Your task to perform on an android device: turn on the 24-hour format for clock Image 0: 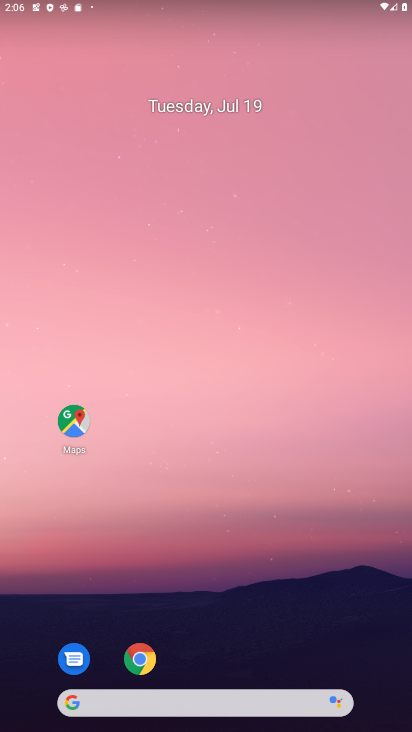
Step 0: press home button
Your task to perform on an android device: turn on the 24-hour format for clock Image 1: 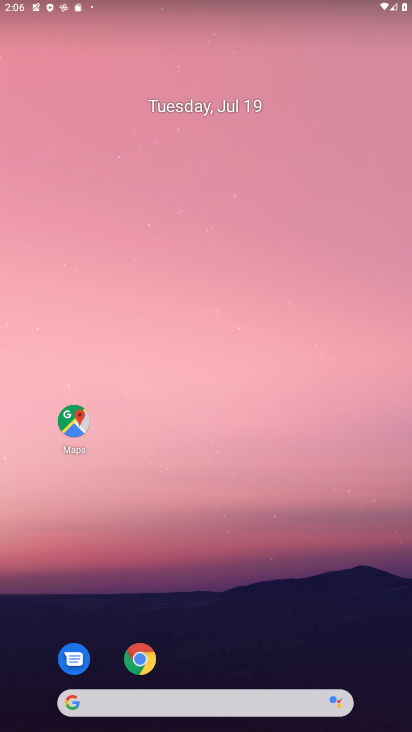
Step 1: drag from (315, 664) to (276, 97)
Your task to perform on an android device: turn on the 24-hour format for clock Image 2: 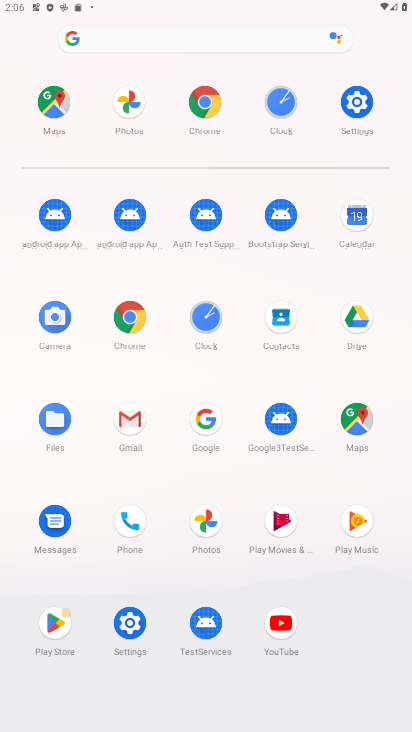
Step 2: click (124, 627)
Your task to perform on an android device: turn on the 24-hour format for clock Image 3: 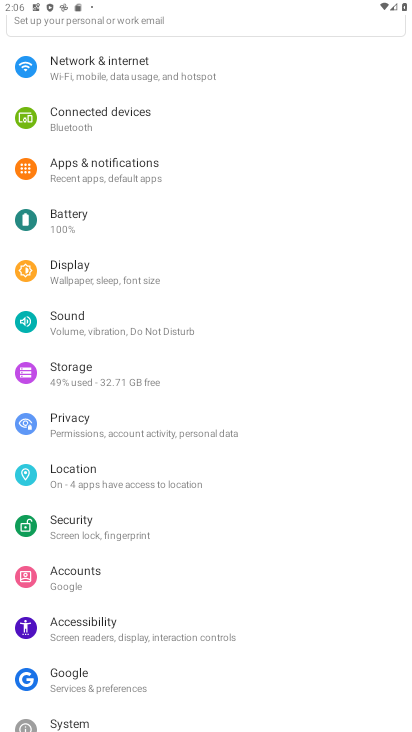
Step 3: press home button
Your task to perform on an android device: turn on the 24-hour format for clock Image 4: 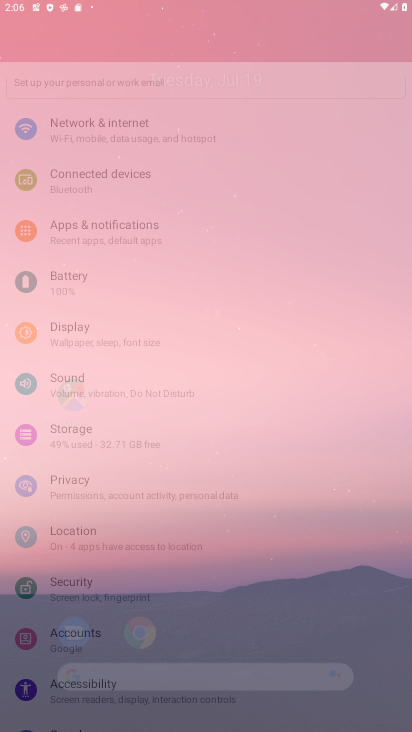
Step 4: drag from (194, 635) to (221, 324)
Your task to perform on an android device: turn on the 24-hour format for clock Image 5: 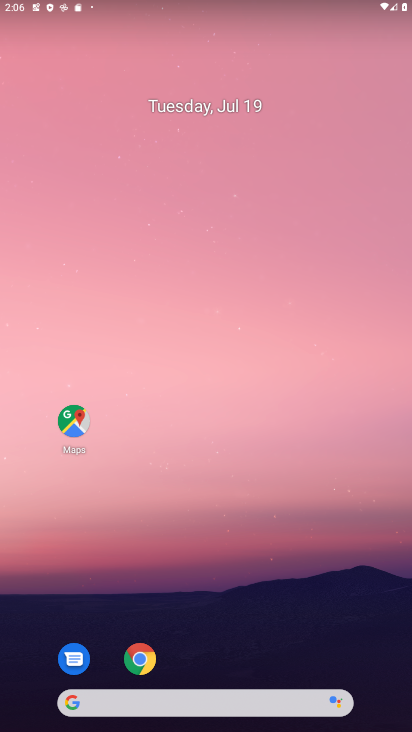
Step 5: drag from (255, 606) to (278, 72)
Your task to perform on an android device: turn on the 24-hour format for clock Image 6: 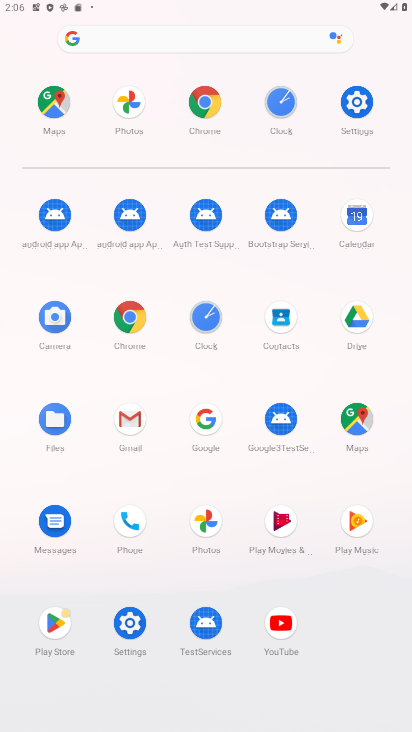
Step 6: click (202, 326)
Your task to perform on an android device: turn on the 24-hour format for clock Image 7: 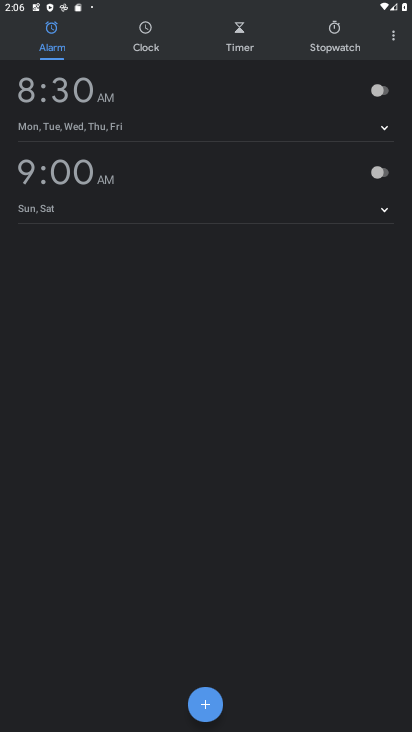
Step 7: click (393, 46)
Your task to perform on an android device: turn on the 24-hour format for clock Image 8: 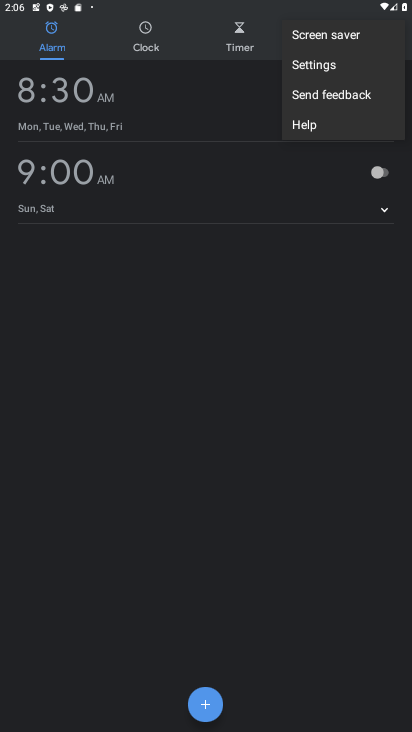
Step 8: click (322, 62)
Your task to perform on an android device: turn on the 24-hour format for clock Image 9: 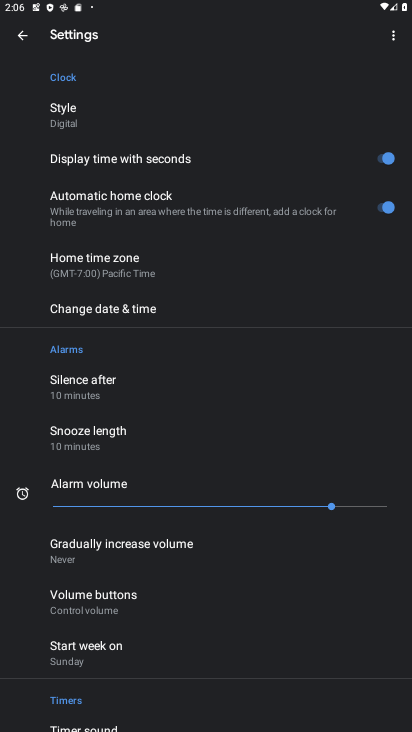
Step 9: click (98, 317)
Your task to perform on an android device: turn on the 24-hour format for clock Image 10: 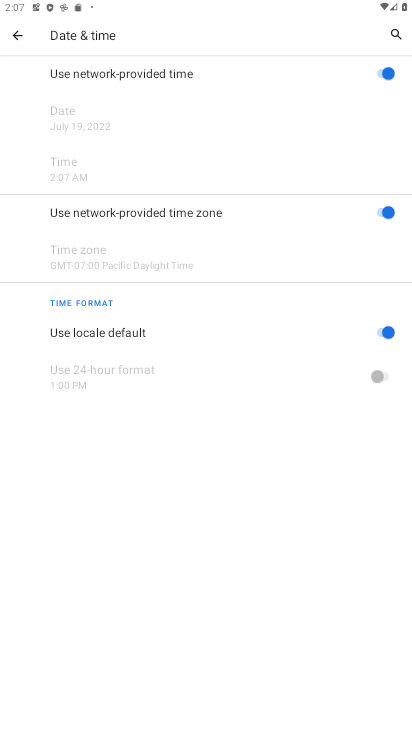
Step 10: click (133, 334)
Your task to perform on an android device: turn on the 24-hour format for clock Image 11: 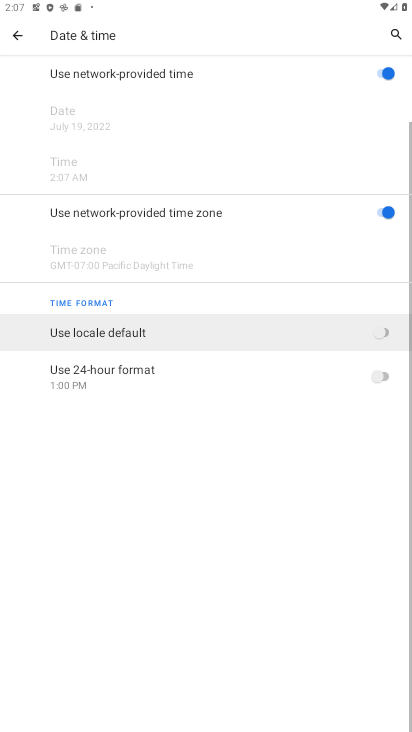
Step 11: click (151, 366)
Your task to perform on an android device: turn on the 24-hour format for clock Image 12: 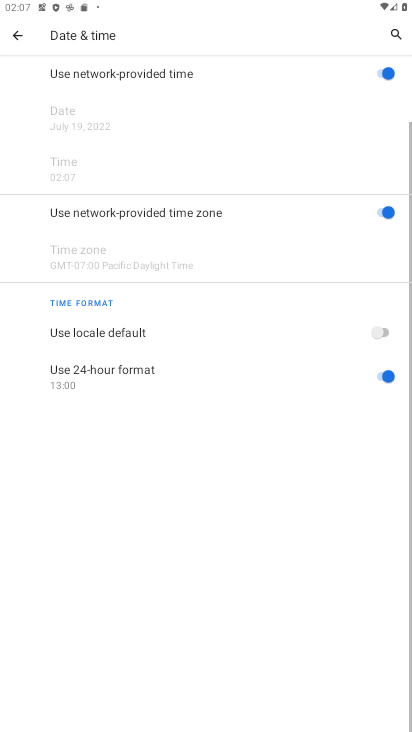
Step 12: task complete